Your task to perform on an android device: Do I have any events today? Image 0: 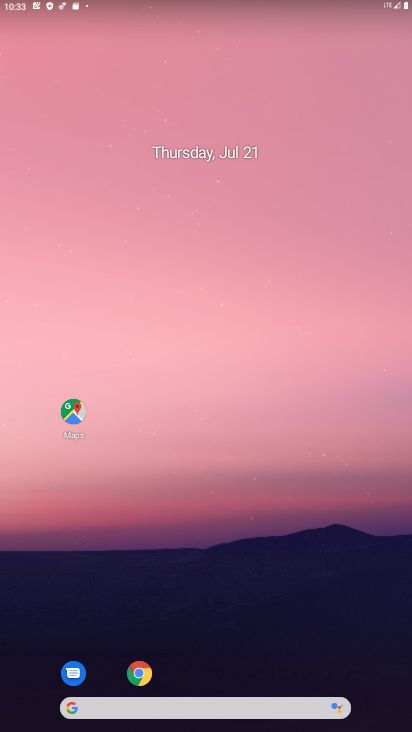
Step 0: drag from (205, 661) to (200, 188)
Your task to perform on an android device: Do I have any events today? Image 1: 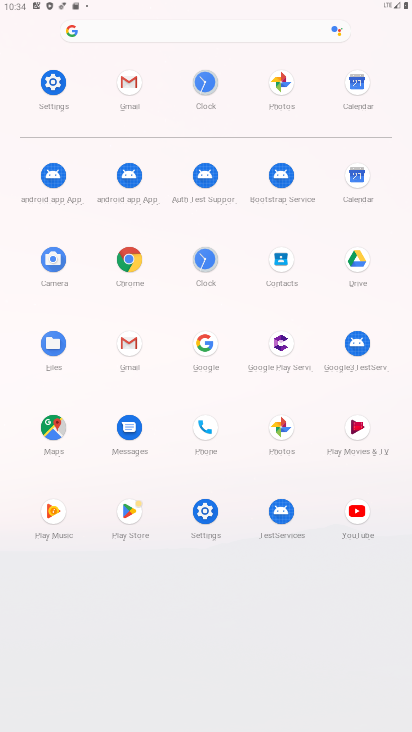
Step 1: click (355, 95)
Your task to perform on an android device: Do I have any events today? Image 2: 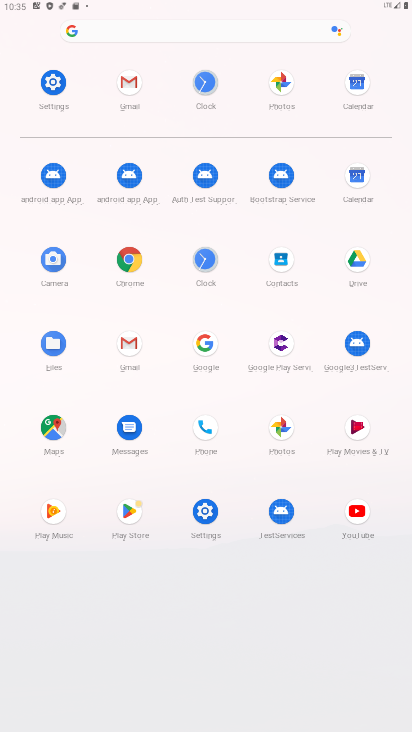
Step 2: click (354, 102)
Your task to perform on an android device: Do I have any events today? Image 3: 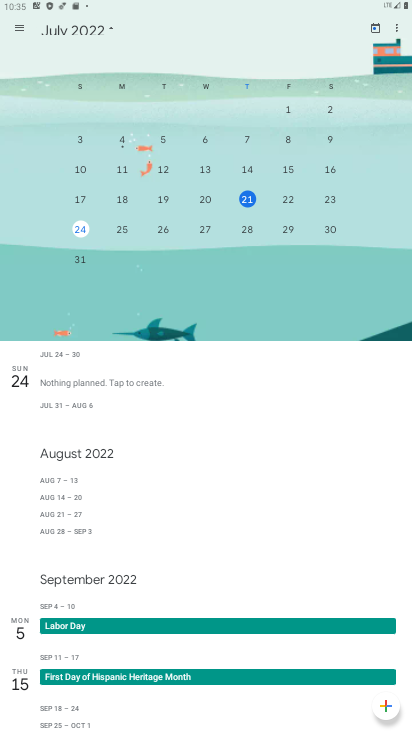
Step 3: task complete